Your task to perform on an android device: open wifi settings Image 0: 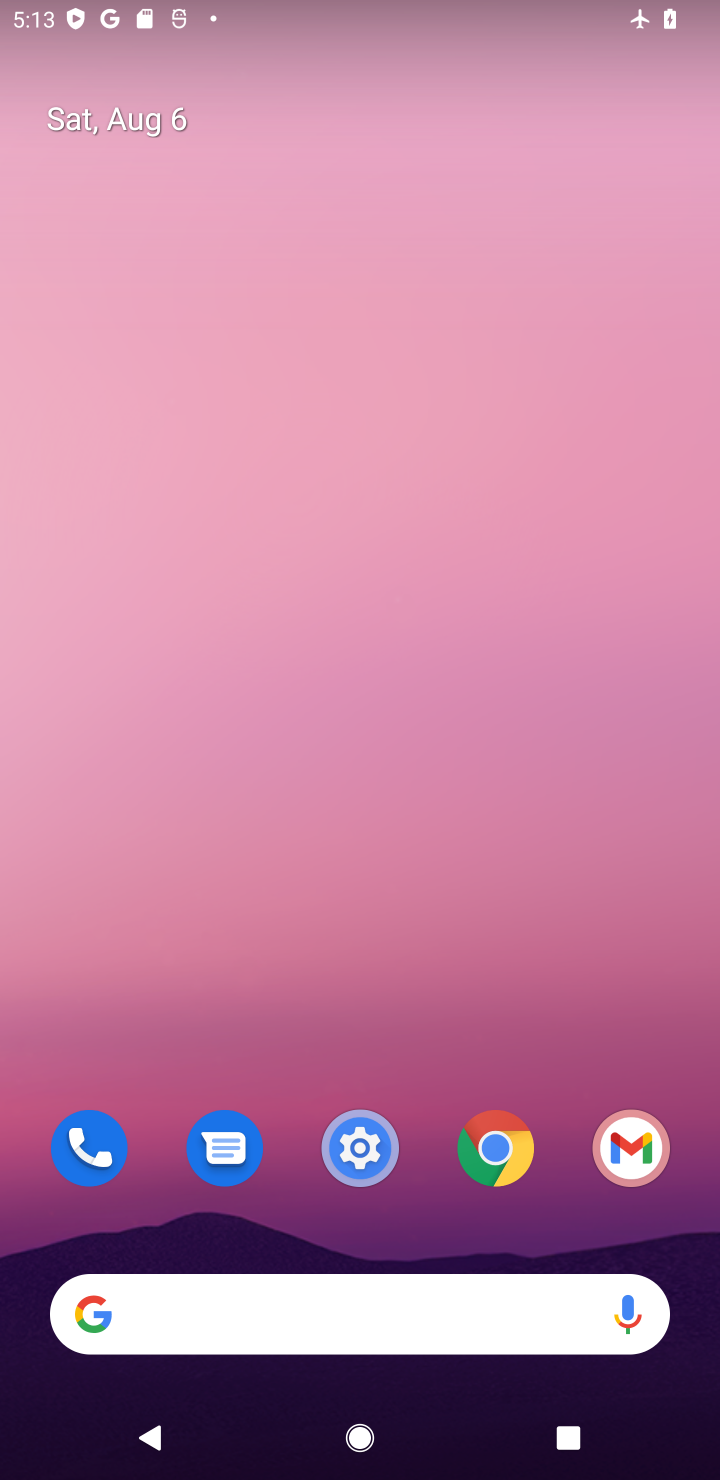
Step 0: click (370, 1157)
Your task to perform on an android device: open wifi settings Image 1: 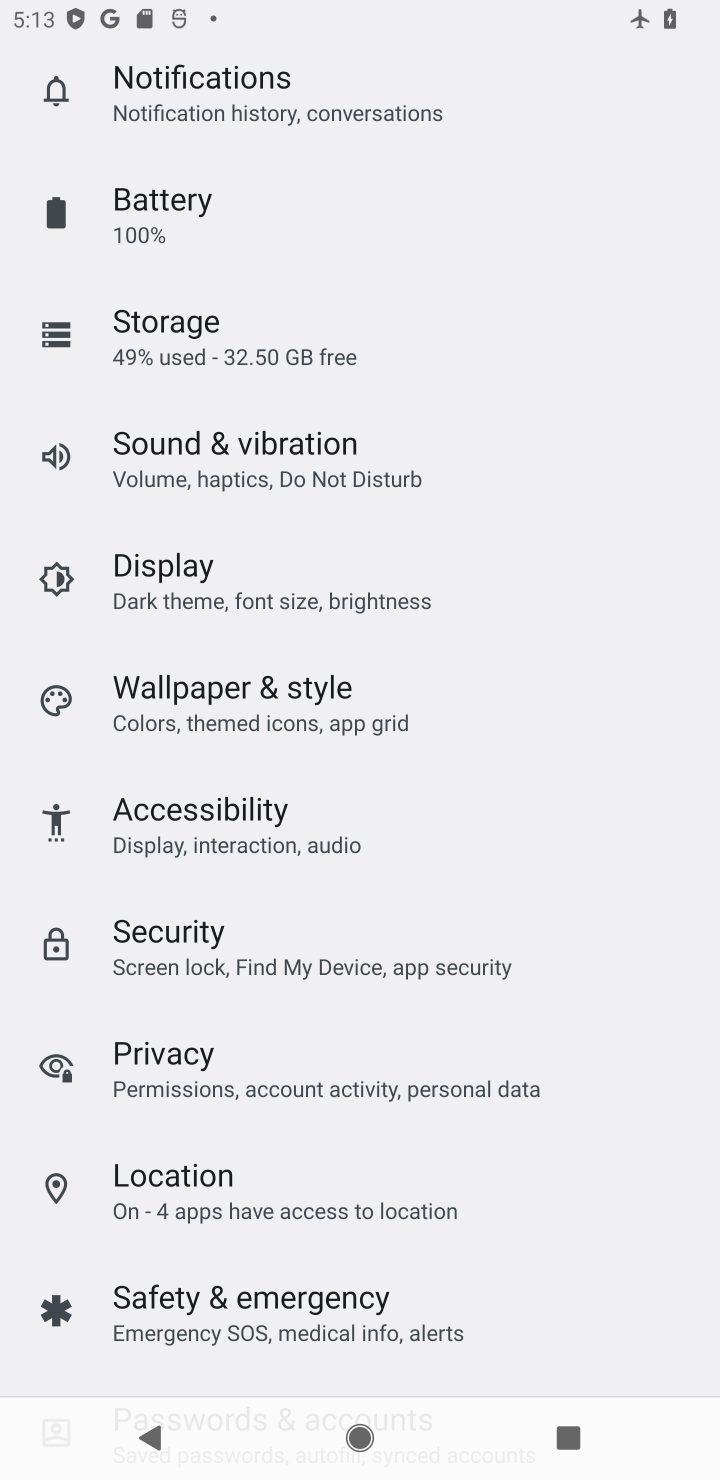
Step 1: drag from (168, 258) to (145, 972)
Your task to perform on an android device: open wifi settings Image 2: 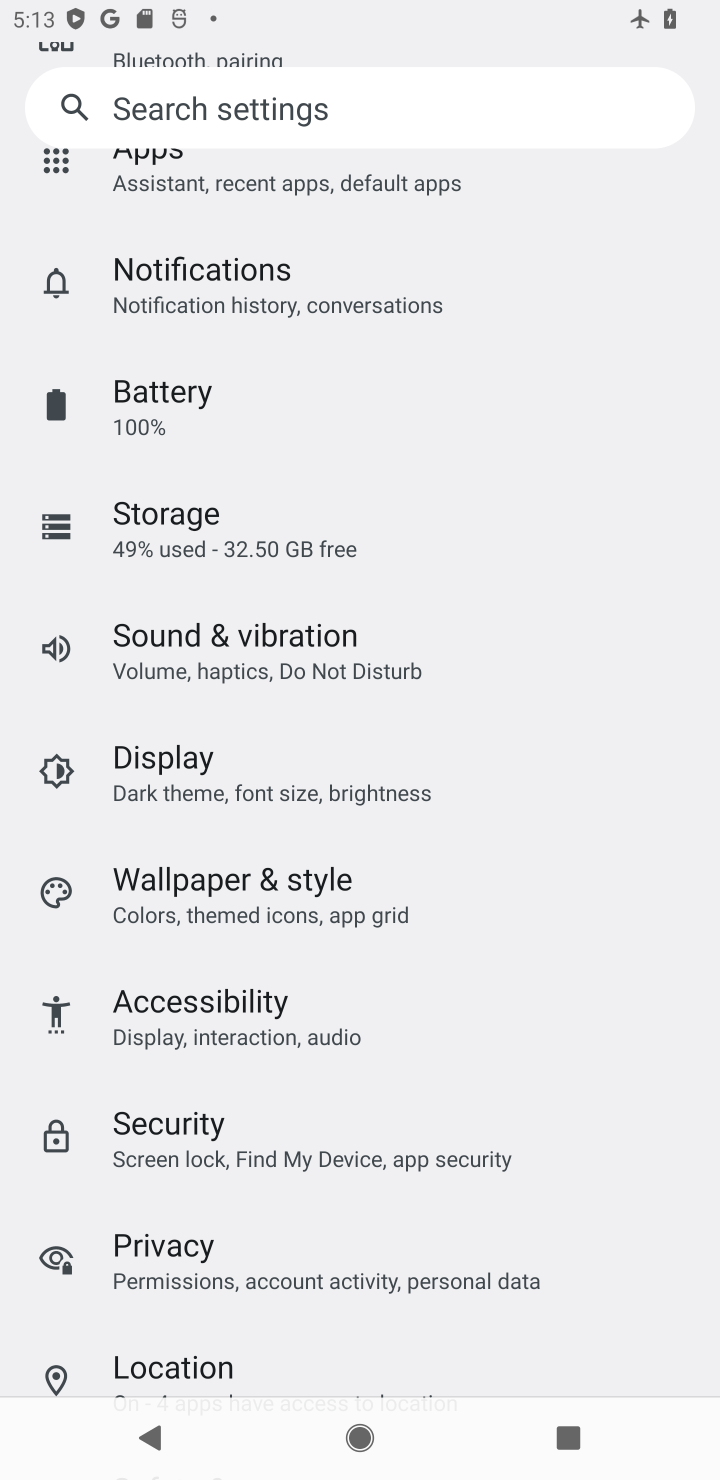
Step 2: drag from (143, 270) to (255, 1204)
Your task to perform on an android device: open wifi settings Image 3: 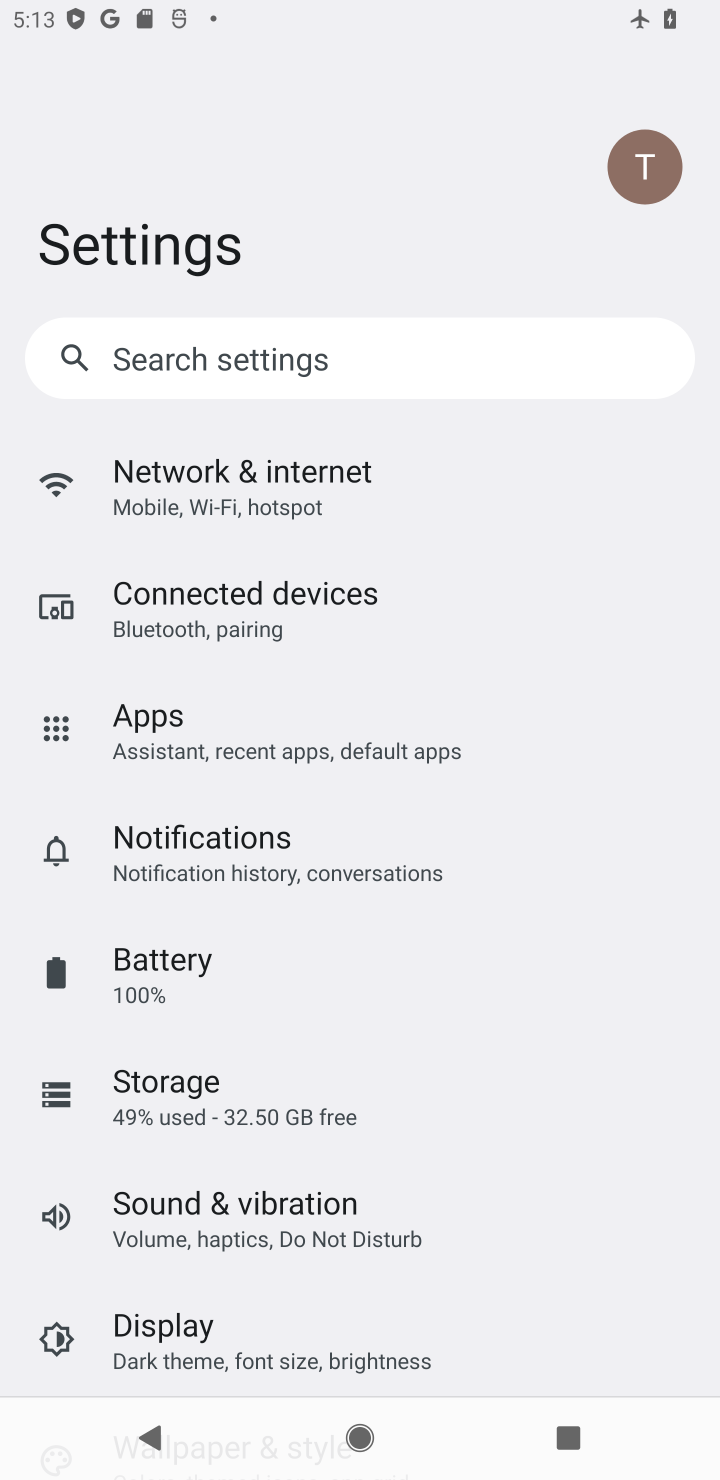
Step 3: click (258, 474)
Your task to perform on an android device: open wifi settings Image 4: 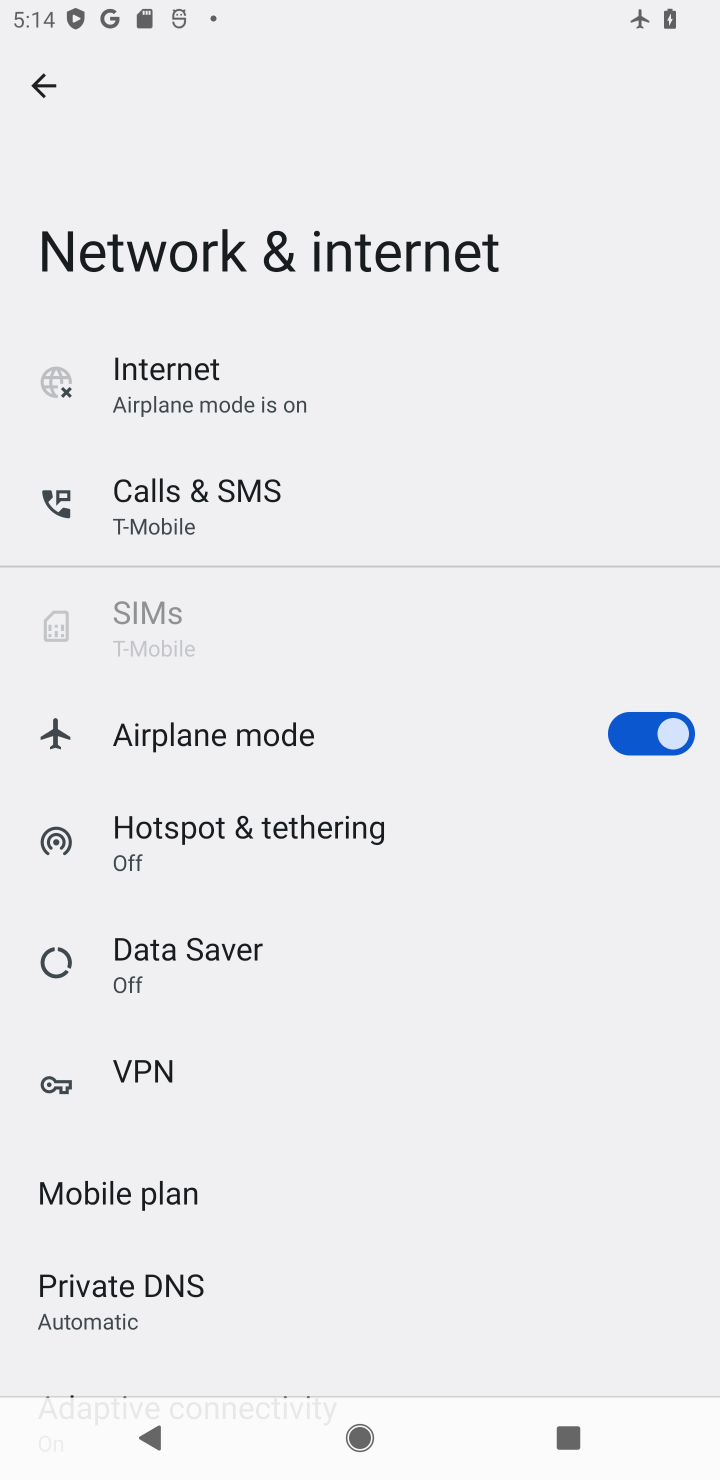
Step 4: click (174, 409)
Your task to perform on an android device: open wifi settings Image 5: 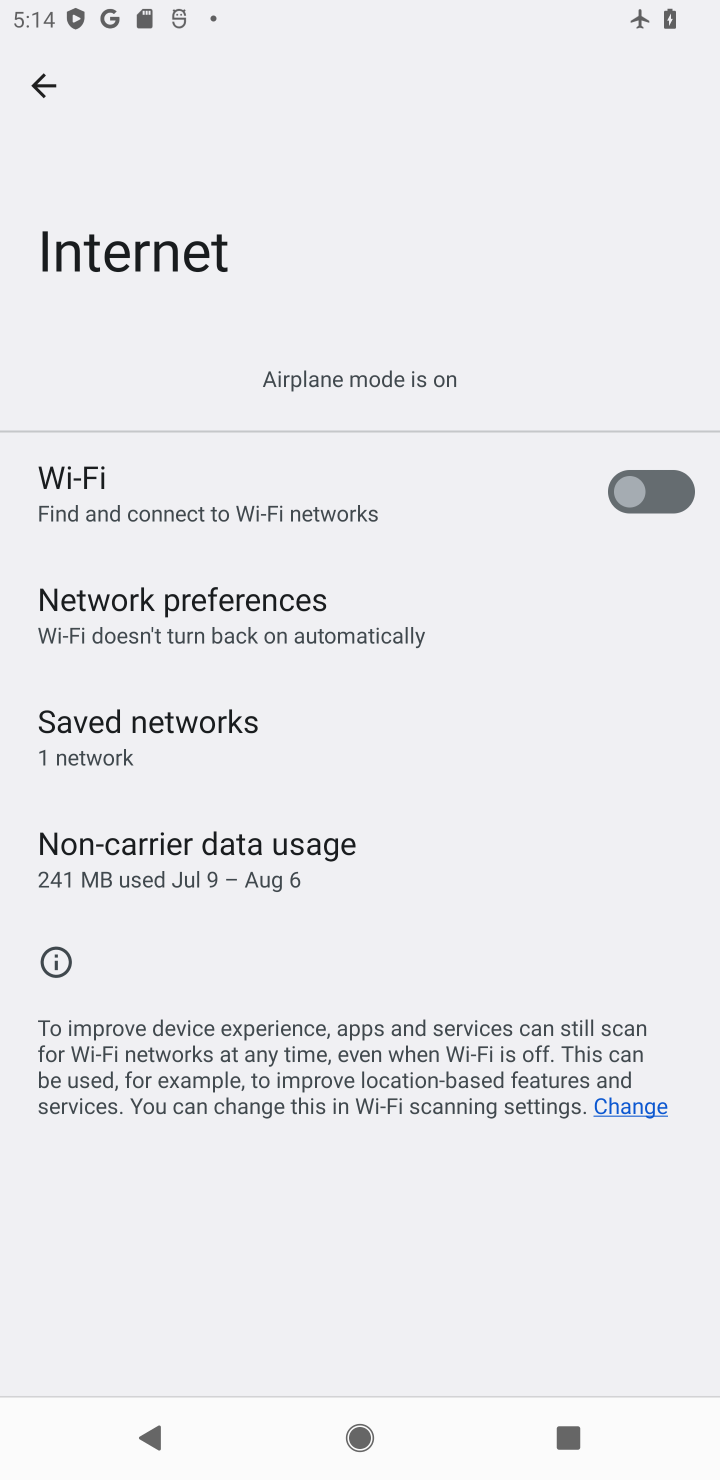
Step 5: task complete